Your task to perform on an android device: Show me productivity apps on the Play Store Image 0: 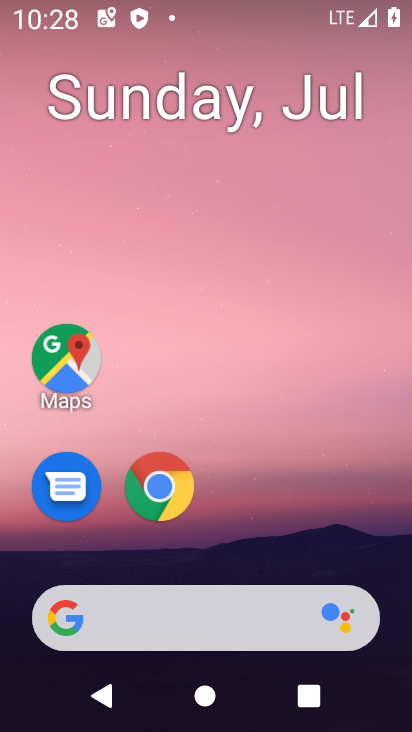
Step 0: press home button
Your task to perform on an android device: Show me productivity apps on the Play Store Image 1: 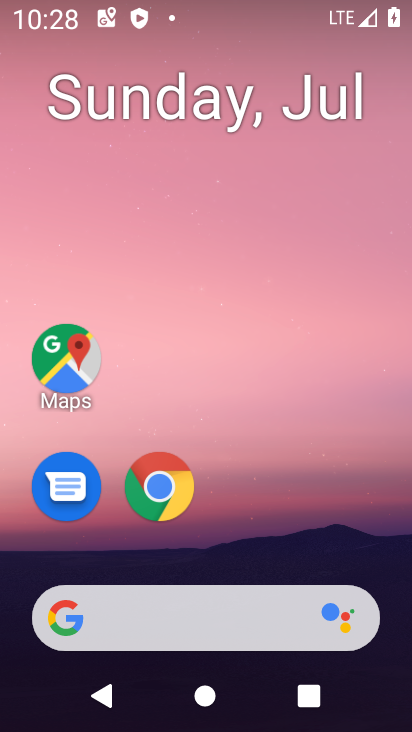
Step 1: drag from (348, 541) to (359, 100)
Your task to perform on an android device: Show me productivity apps on the Play Store Image 2: 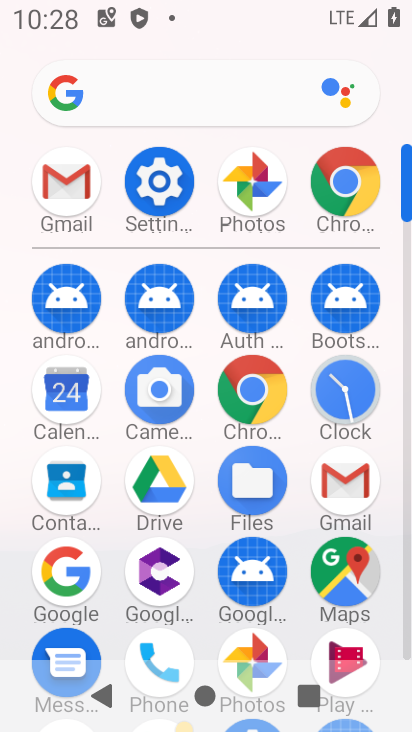
Step 2: drag from (399, 487) to (392, 260)
Your task to perform on an android device: Show me productivity apps on the Play Store Image 3: 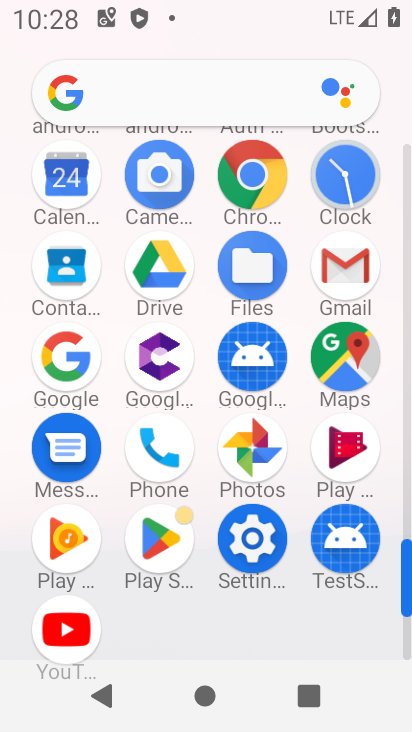
Step 3: click (177, 549)
Your task to perform on an android device: Show me productivity apps on the Play Store Image 4: 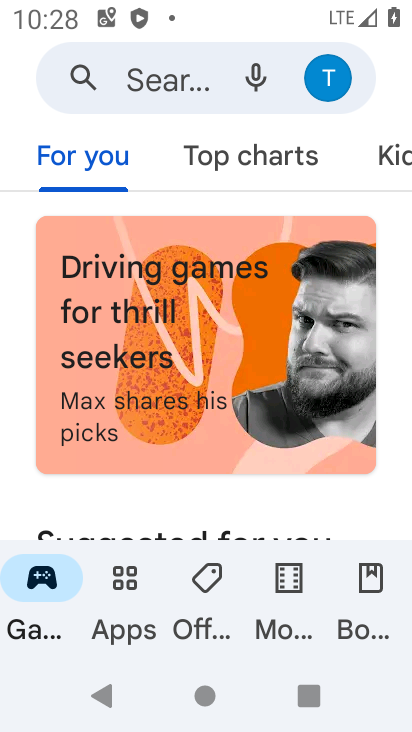
Step 4: click (131, 580)
Your task to perform on an android device: Show me productivity apps on the Play Store Image 5: 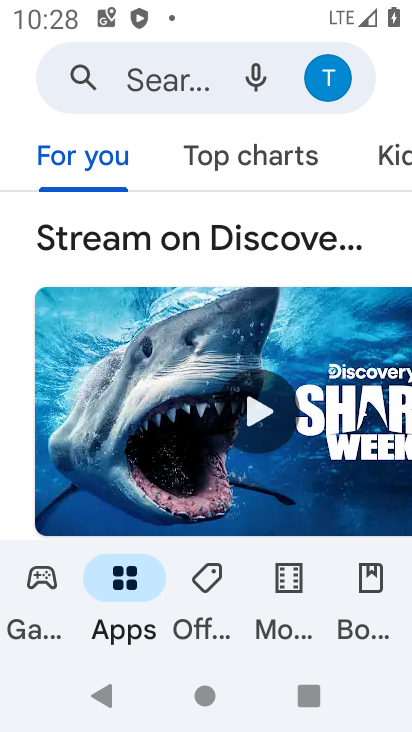
Step 5: task complete